Your task to perform on an android device: Open the web browser Image 0: 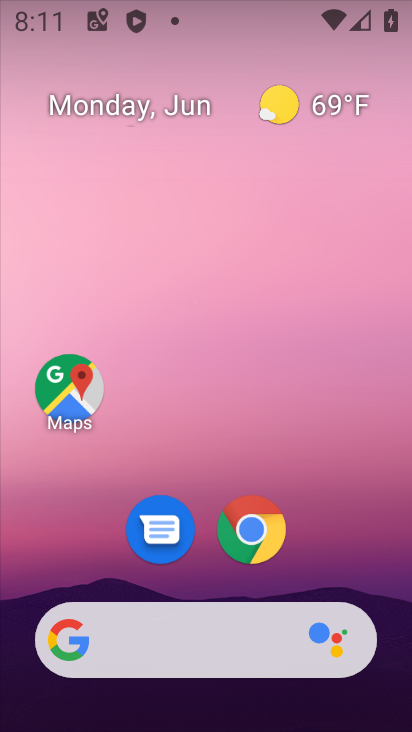
Step 0: click (243, 547)
Your task to perform on an android device: Open the web browser Image 1: 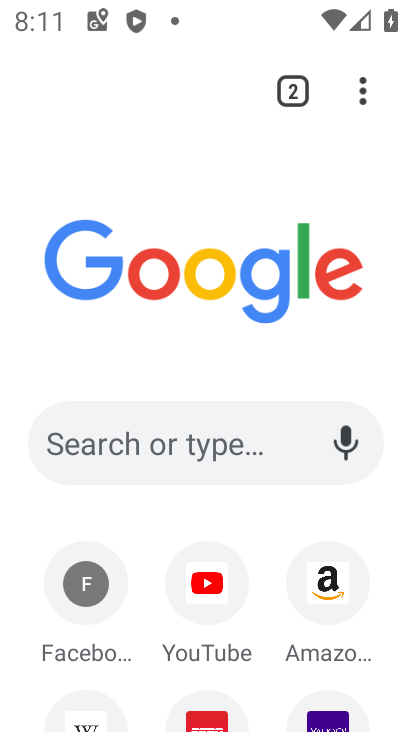
Step 1: task complete